Your task to perform on an android device: check storage Image 0: 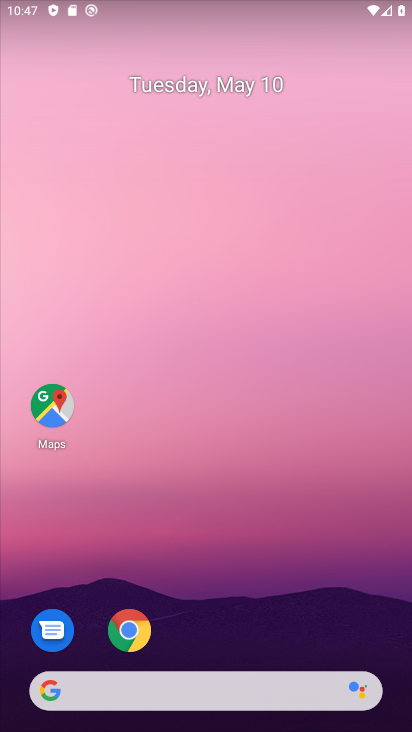
Step 0: drag from (186, 631) to (302, 56)
Your task to perform on an android device: check storage Image 1: 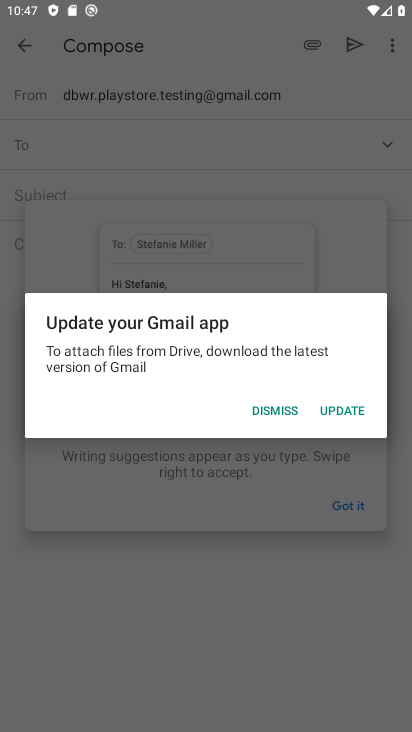
Step 1: click (204, 679)
Your task to perform on an android device: check storage Image 2: 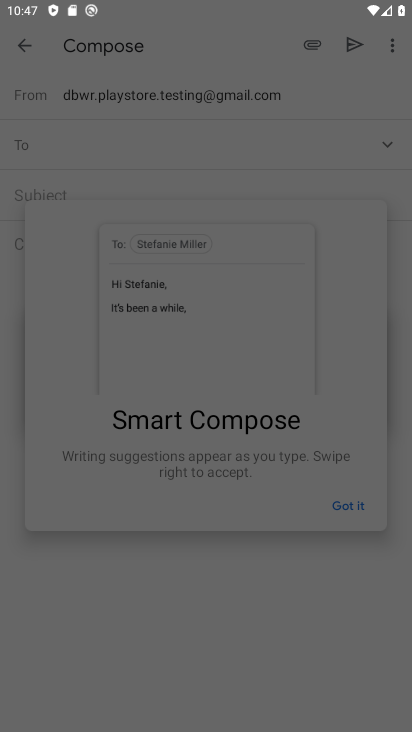
Step 2: press back button
Your task to perform on an android device: check storage Image 3: 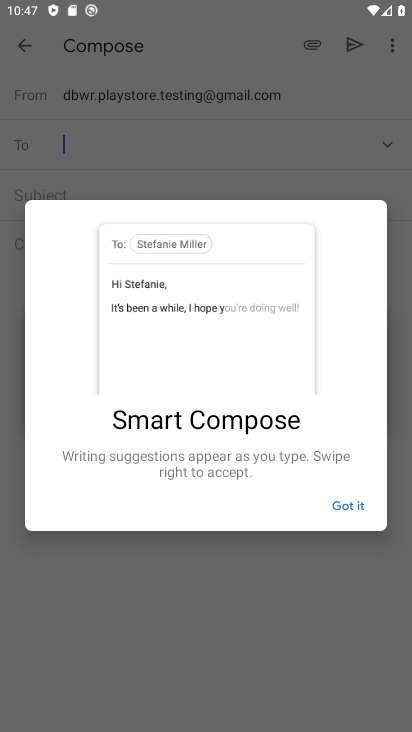
Step 3: press home button
Your task to perform on an android device: check storage Image 4: 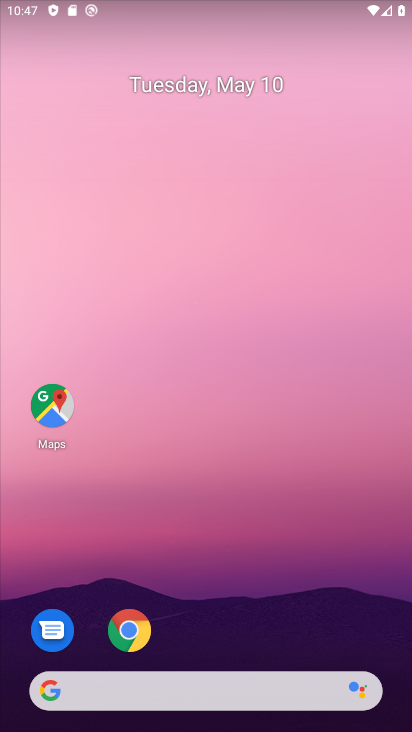
Step 4: drag from (212, 667) to (358, 91)
Your task to perform on an android device: check storage Image 5: 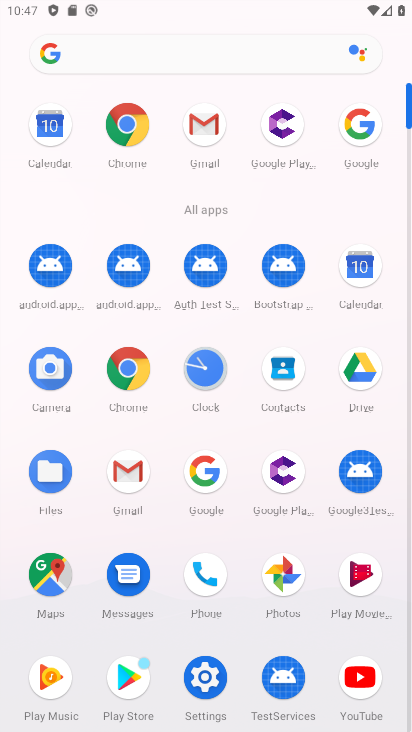
Step 5: click (197, 676)
Your task to perform on an android device: check storage Image 6: 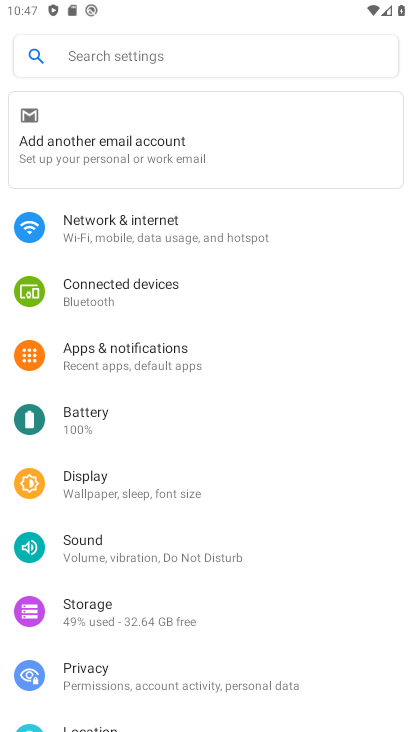
Step 6: drag from (251, 635) to (297, 429)
Your task to perform on an android device: check storage Image 7: 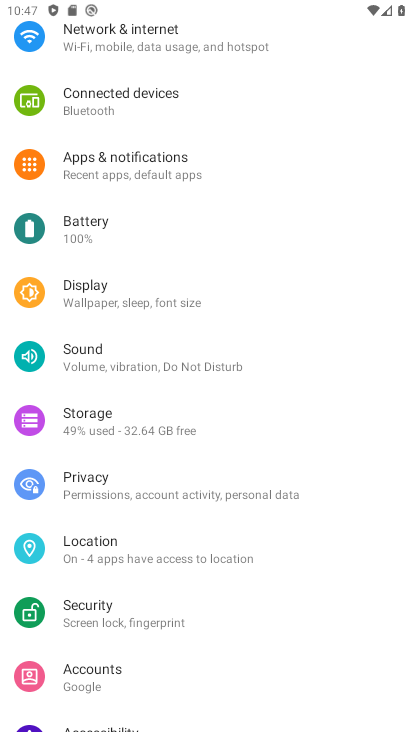
Step 7: click (198, 408)
Your task to perform on an android device: check storage Image 8: 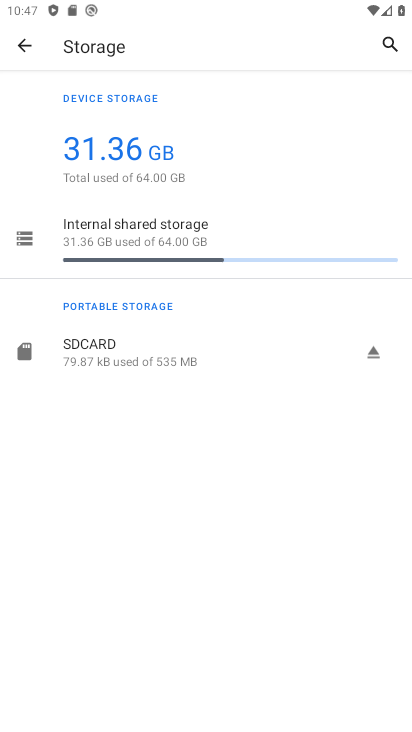
Step 8: click (147, 222)
Your task to perform on an android device: check storage Image 9: 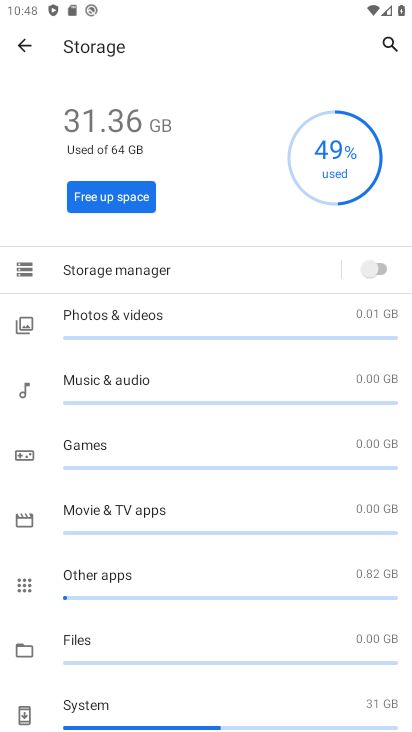
Step 9: task complete